Your task to perform on an android device: Show me the alarms in the clock app Image 0: 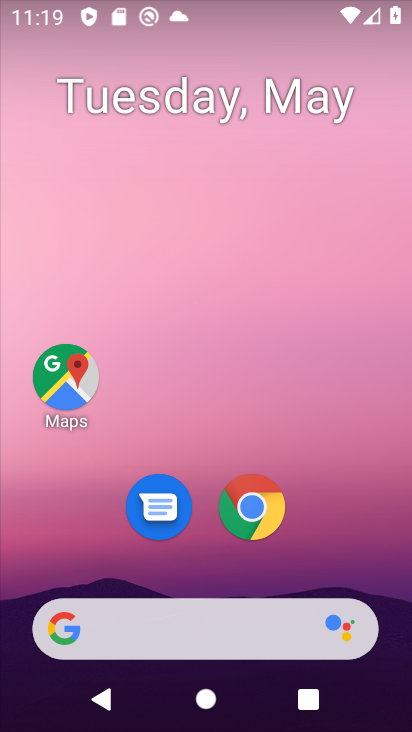
Step 0: click (197, 162)
Your task to perform on an android device: Show me the alarms in the clock app Image 1: 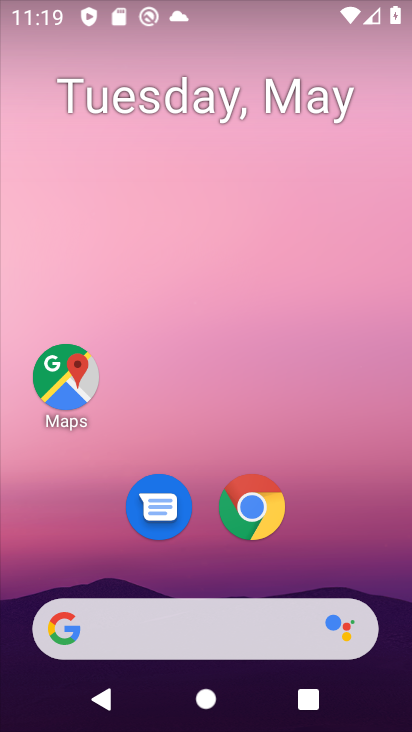
Step 1: drag from (239, 666) to (178, 313)
Your task to perform on an android device: Show me the alarms in the clock app Image 2: 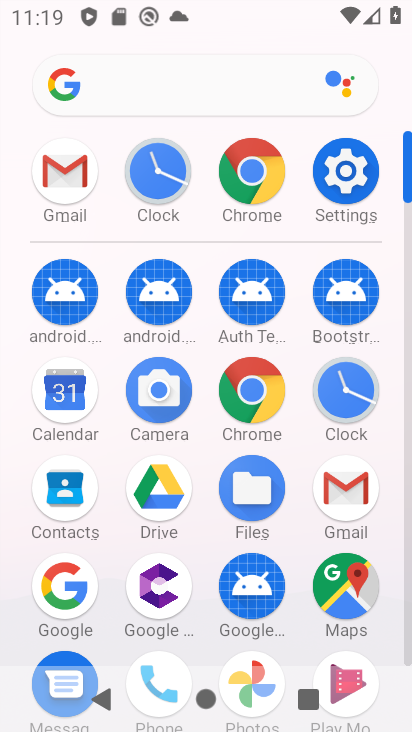
Step 2: click (330, 394)
Your task to perform on an android device: Show me the alarms in the clock app Image 3: 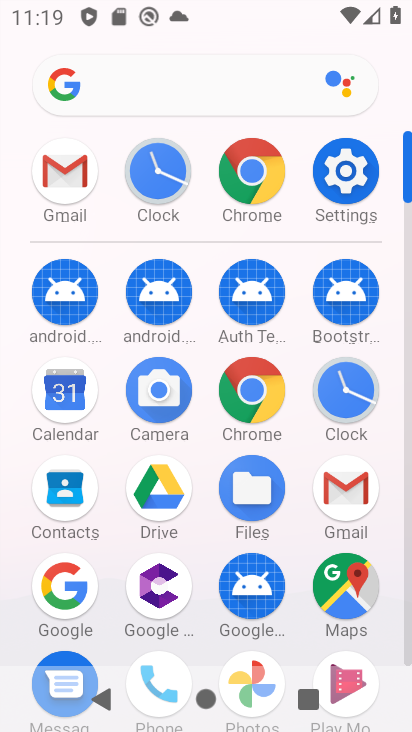
Step 3: click (330, 394)
Your task to perform on an android device: Show me the alarms in the clock app Image 4: 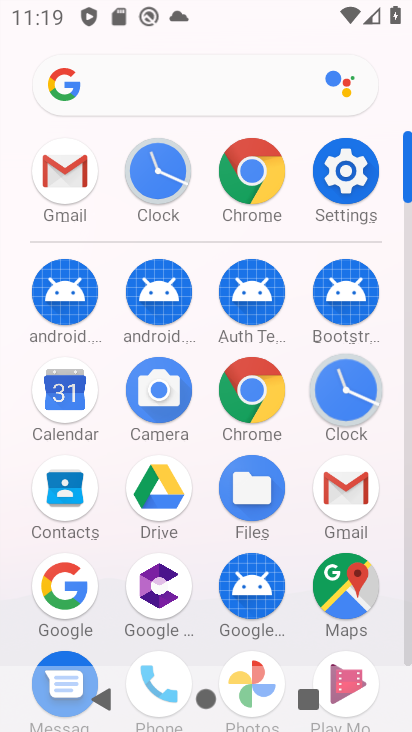
Step 4: click (330, 394)
Your task to perform on an android device: Show me the alarms in the clock app Image 5: 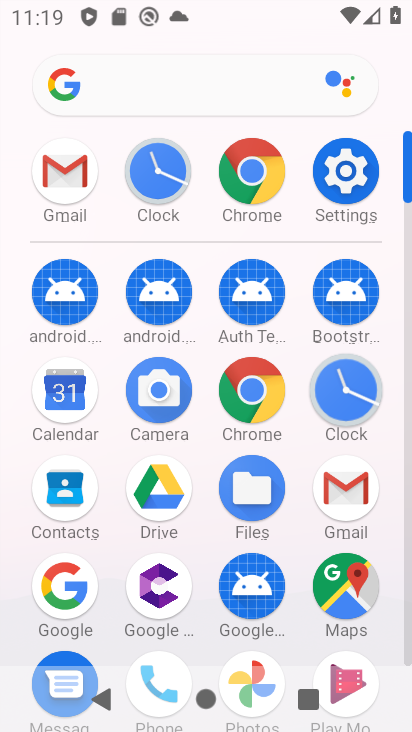
Step 5: click (330, 394)
Your task to perform on an android device: Show me the alarms in the clock app Image 6: 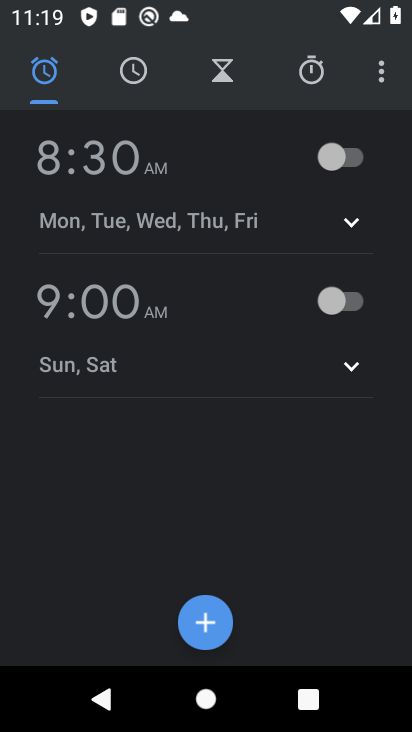
Step 6: click (328, 394)
Your task to perform on an android device: Show me the alarms in the clock app Image 7: 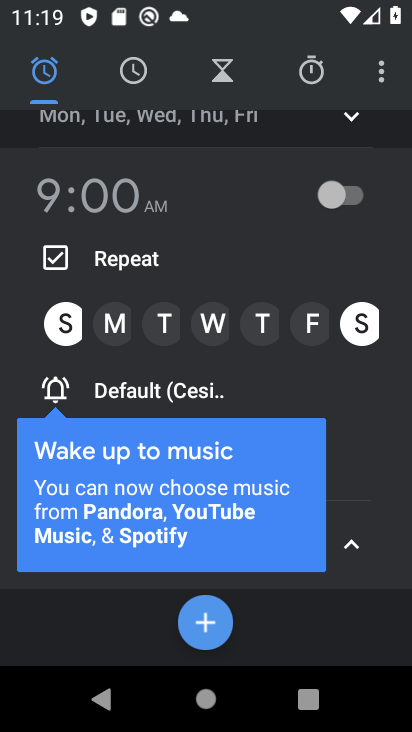
Step 7: task complete